Your task to perform on an android device: toggle location history Image 0: 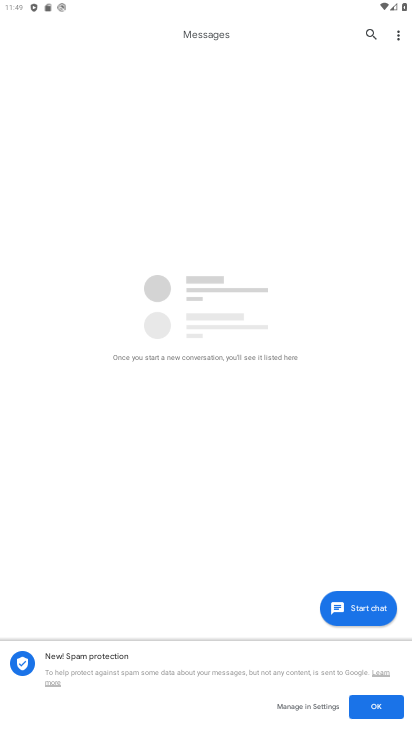
Step 0: press home button
Your task to perform on an android device: toggle location history Image 1: 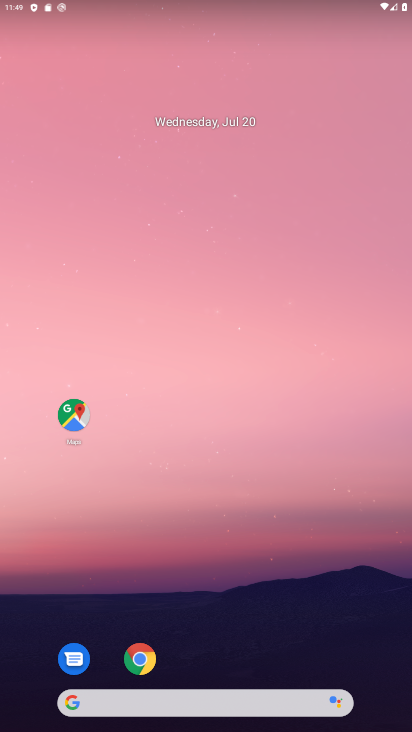
Step 1: drag from (360, 554) to (240, 5)
Your task to perform on an android device: toggle location history Image 2: 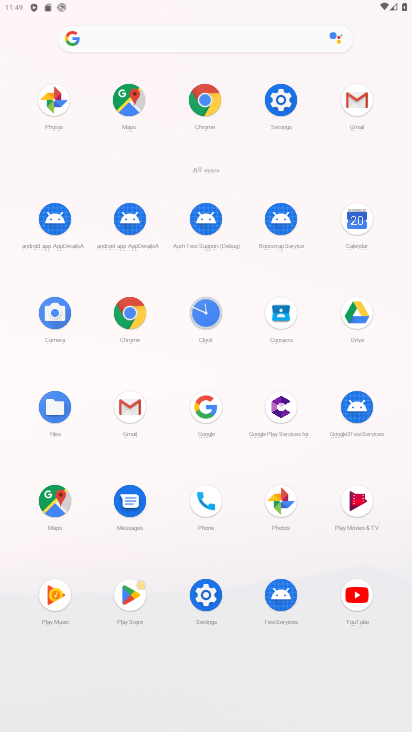
Step 2: click (277, 100)
Your task to perform on an android device: toggle location history Image 3: 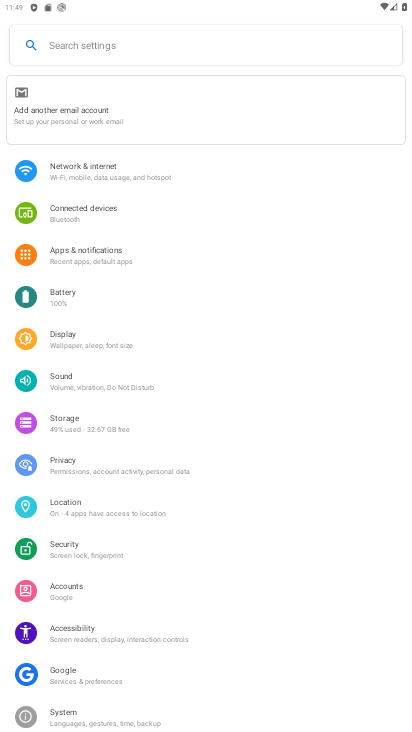
Step 3: click (77, 507)
Your task to perform on an android device: toggle location history Image 4: 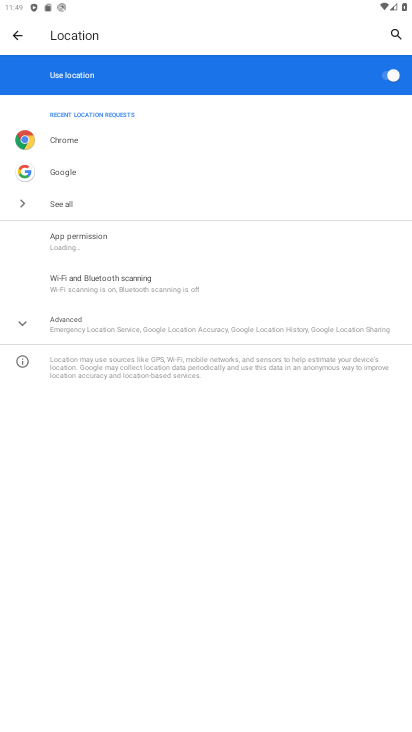
Step 4: click (118, 324)
Your task to perform on an android device: toggle location history Image 5: 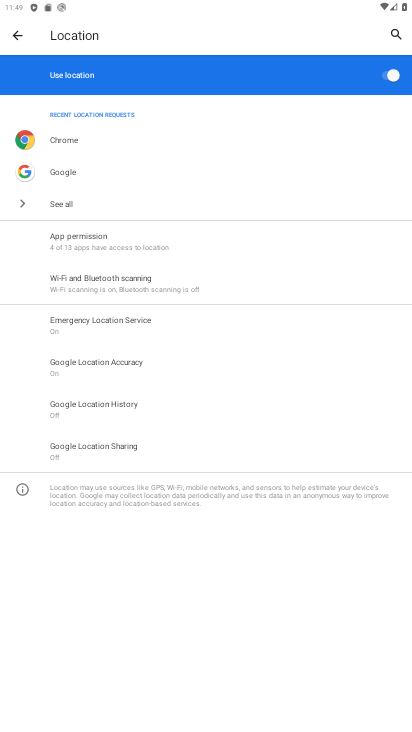
Step 5: click (115, 402)
Your task to perform on an android device: toggle location history Image 6: 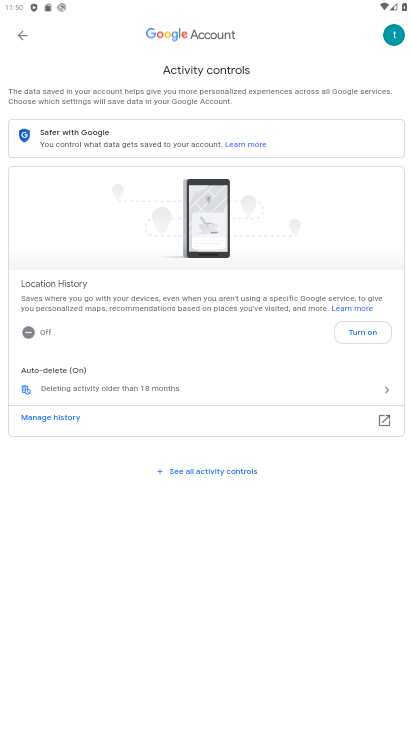
Step 6: click (363, 328)
Your task to perform on an android device: toggle location history Image 7: 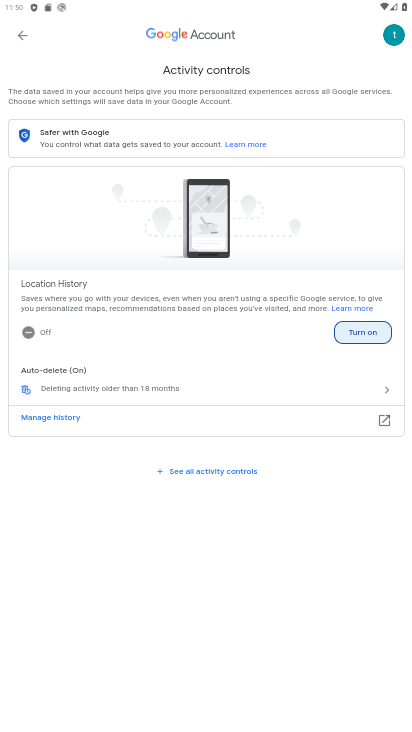
Step 7: click (358, 327)
Your task to perform on an android device: toggle location history Image 8: 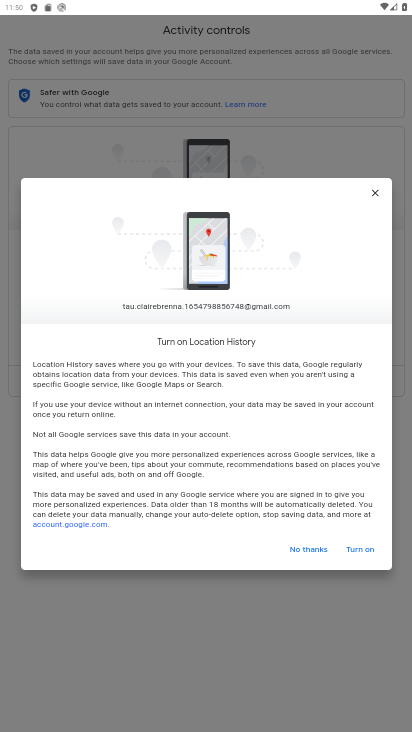
Step 8: click (360, 544)
Your task to perform on an android device: toggle location history Image 9: 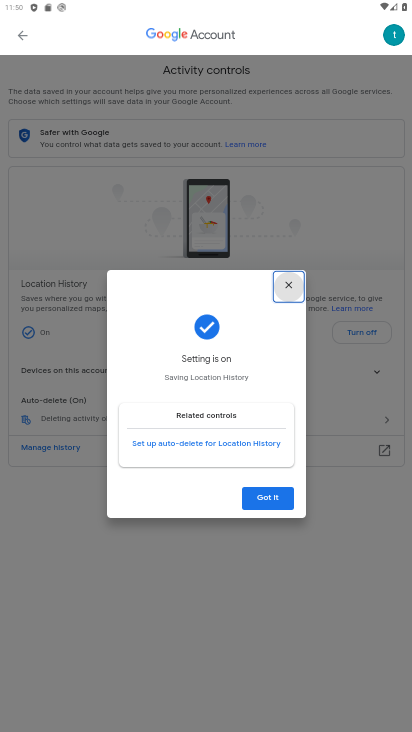
Step 9: task complete